Your task to perform on an android device: See recent photos Image 0: 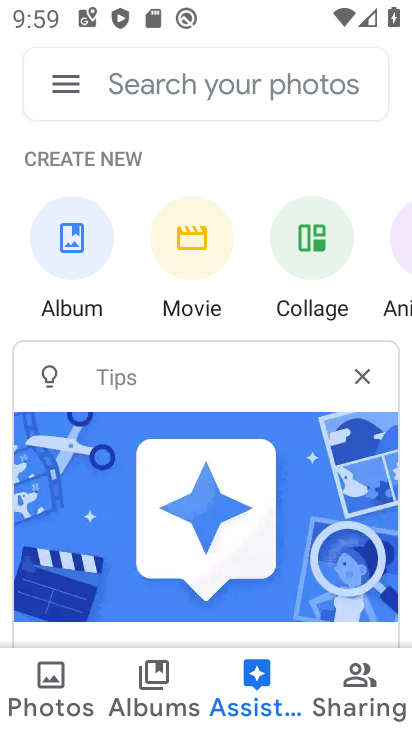
Step 0: click (55, 689)
Your task to perform on an android device: See recent photos Image 1: 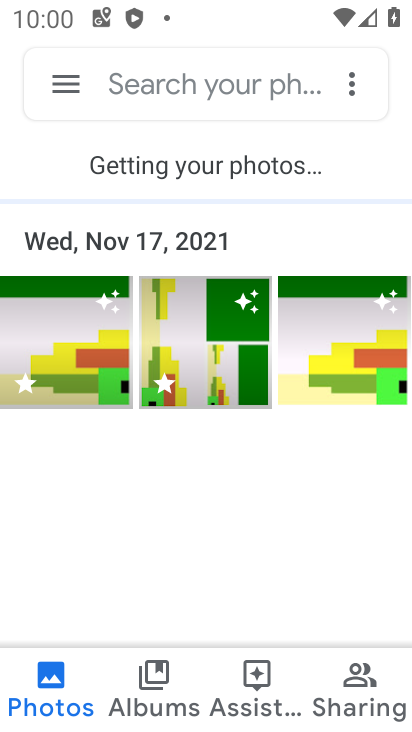
Step 1: task complete